Your task to perform on an android device: toggle improve location accuracy Image 0: 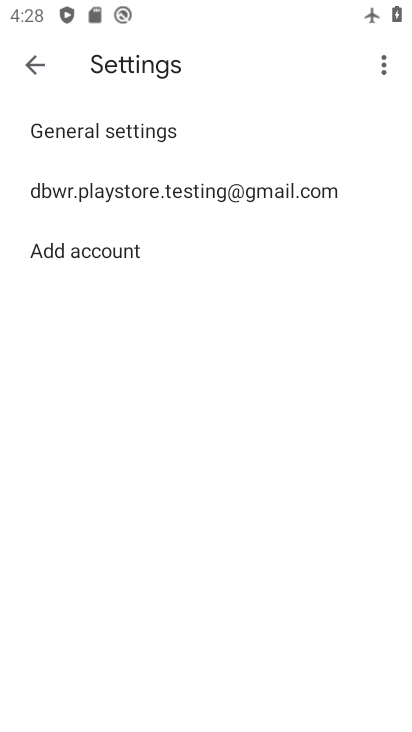
Step 0: press home button
Your task to perform on an android device: toggle improve location accuracy Image 1: 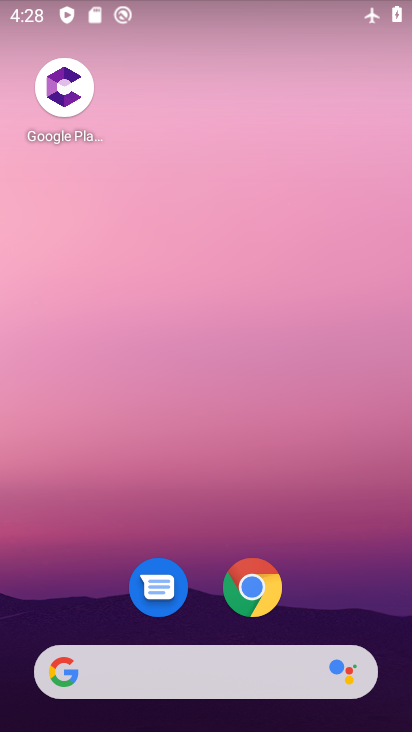
Step 1: drag from (334, 511) to (189, 13)
Your task to perform on an android device: toggle improve location accuracy Image 2: 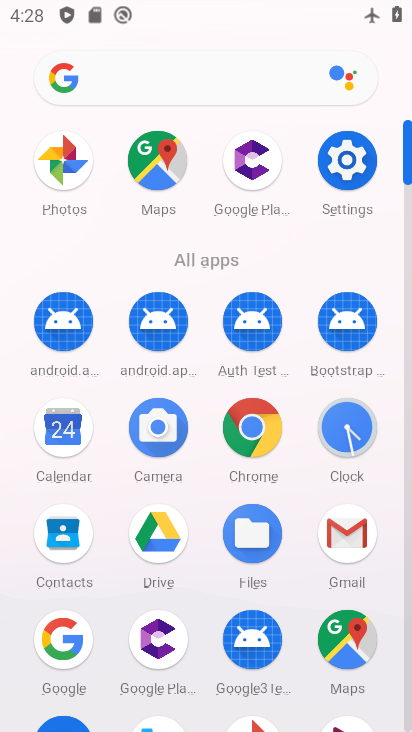
Step 2: click (349, 178)
Your task to perform on an android device: toggle improve location accuracy Image 3: 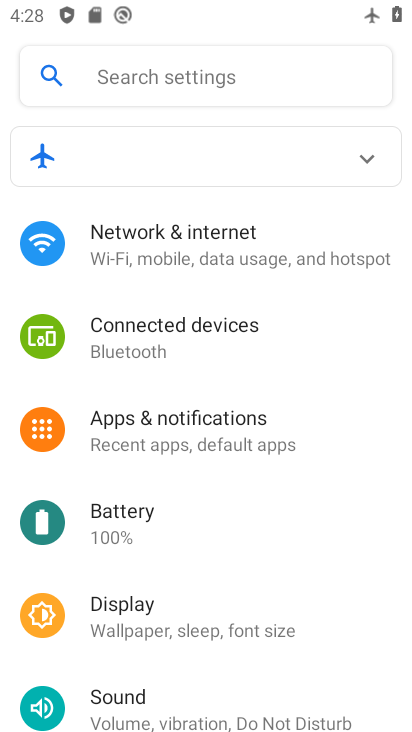
Step 3: drag from (247, 629) to (256, 189)
Your task to perform on an android device: toggle improve location accuracy Image 4: 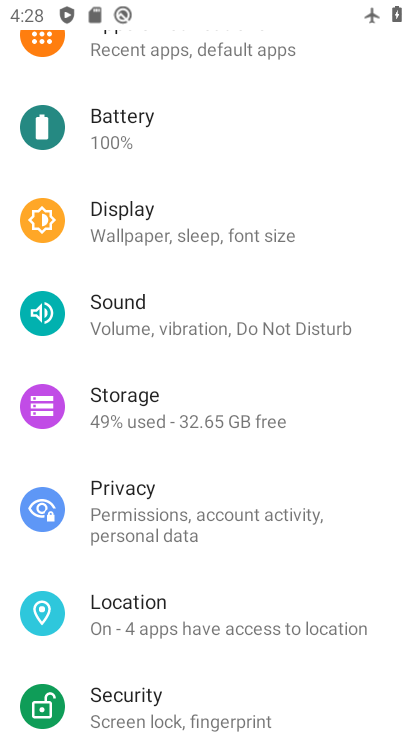
Step 4: click (166, 613)
Your task to perform on an android device: toggle improve location accuracy Image 5: 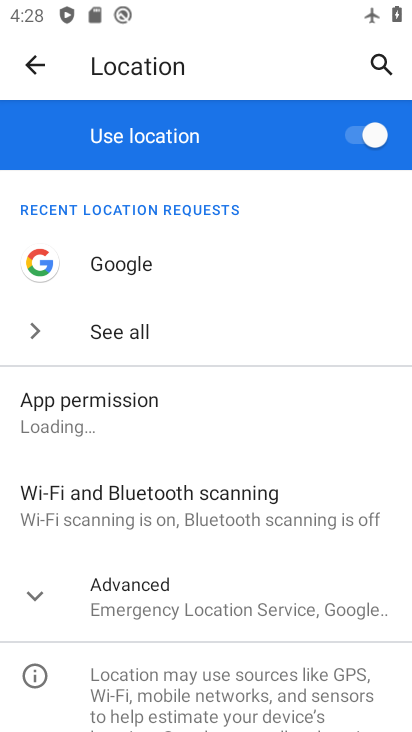
Step 5: click (237, 615)
Your task to perform on an android device: toggle improve location accuracy Image 6: 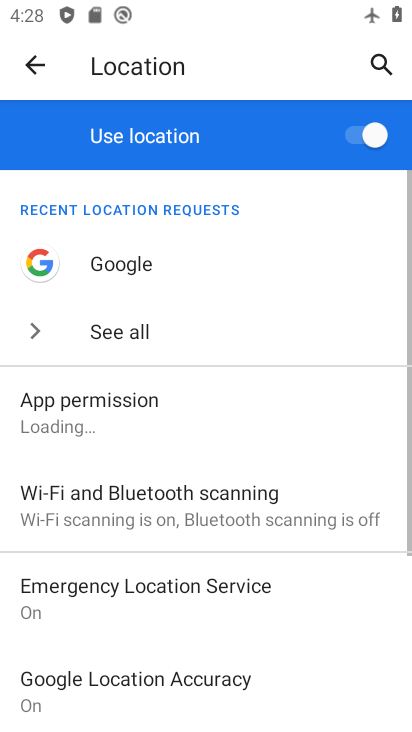
Step 6: drag from (235, 589) to (262, 385)
Your task to perform on an android device: toggle improve location accuracy Image 7: 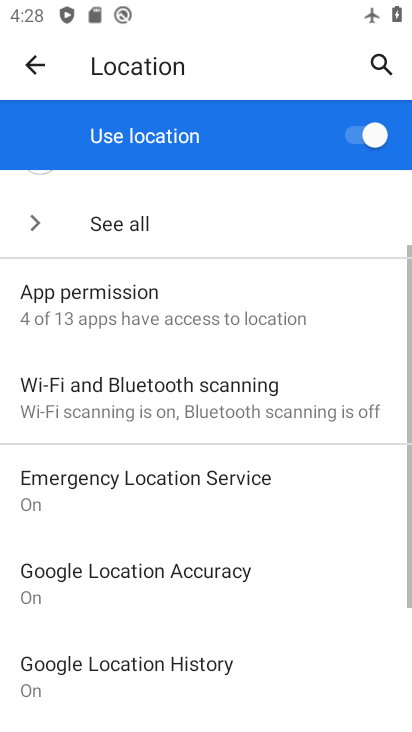
Step 7: click (226, 567)
Your task to perform on an android device: toggle improve location accuracy Image 8: 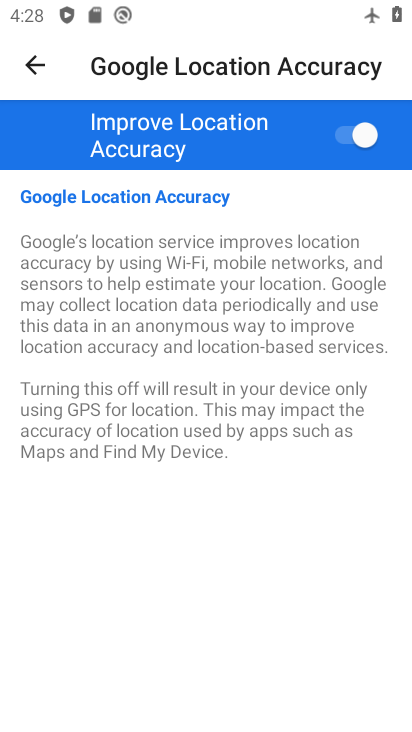
Step 8: click (347, 143)
Your task to perform on an android device: toggle improve location accuracy Image 9: 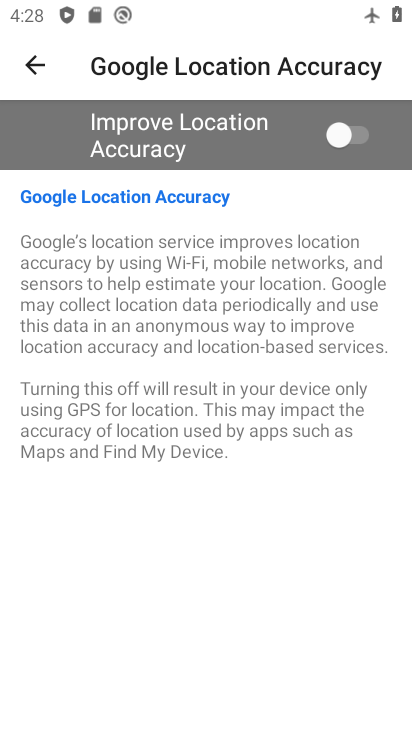
Step 9: task complete